Your task to perform on an android device: Clear the cart on walmart.com. Search for dell xps on walmart.com, select the first entry, and add it to the cart. Image 0: 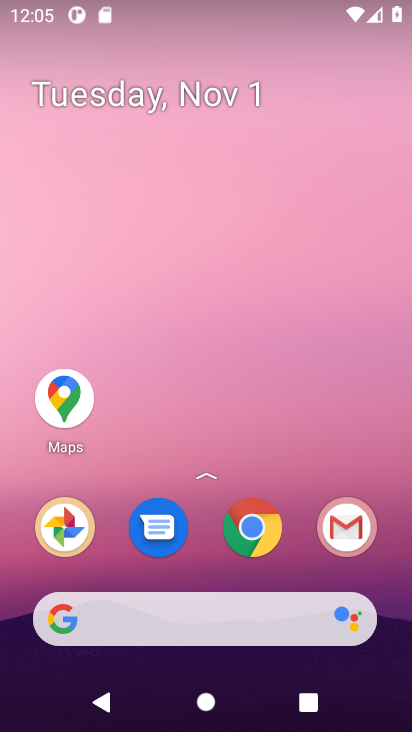
Step 0: click (248, 534)
Your task to perform on an android device: Clear the cart on walmart.com. Search for dell xps on walmart.com, select the first entry, and add it to the cart. Image 1: 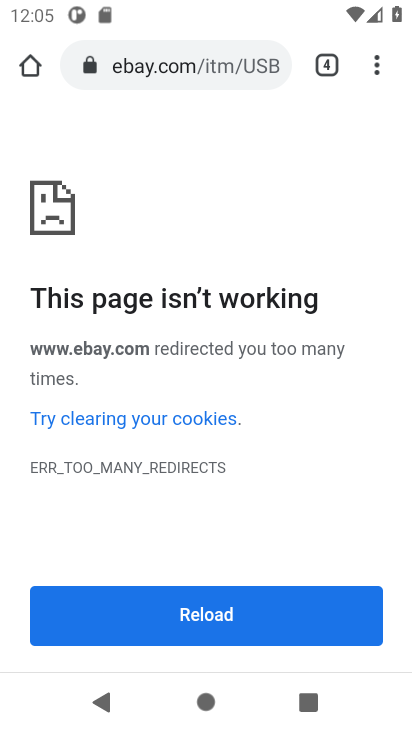
Step 1: click (174, 43)
Your task to perform on an android device: Clear the cart on walmart.com. Search for dell xps on walmart.com, select the first entry, and add it to the cart. Image 2: 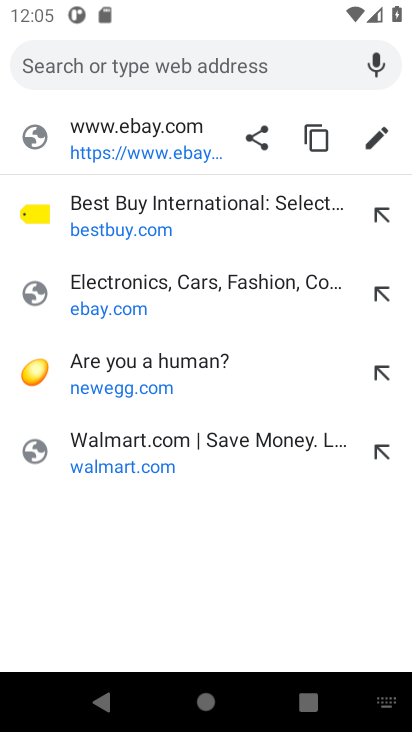
Step 2: click (90, 451)
Your task to perform on an android device: Clear the cart on walmart.com. Search for dell xps on walmart.com, select the first entry, and add it to the cart. Image 3: 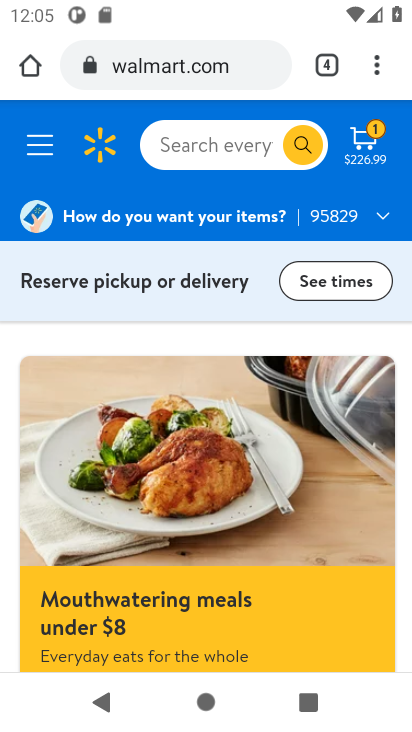
Step 3: click (366, 137)
Your task to perform on an android device: Clear the cart on walmart.com. Search for dell xps on walmart.com, select the first entry, and add it to the cart. Image 4: 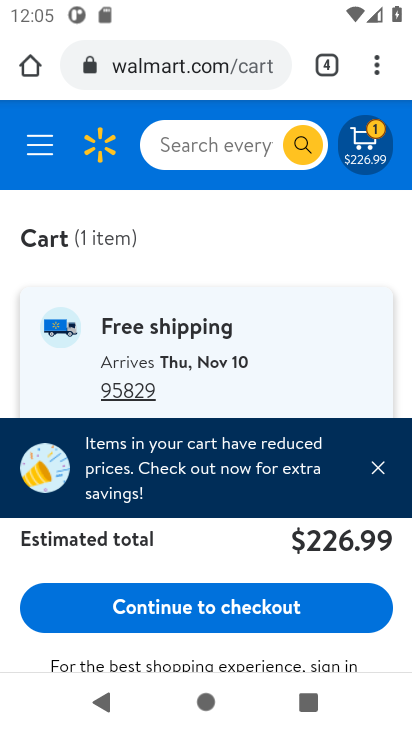
Step 4: click (375, 468)
Your task to perform on an android device: Clear the cart on walmart.com. Search for dell xps on walmart.com, select the first entry, and add it to the cart. Image 5: 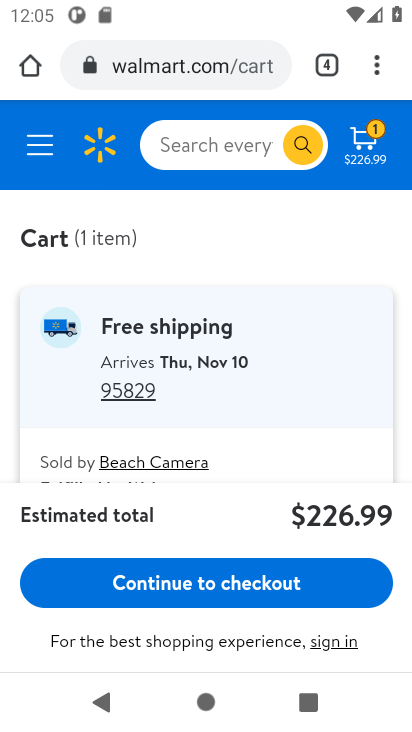
Step 5: drag from (234, 435) to (231, 233)
Your task to perform on an android device: Clear the cart on walmart.com. Search for dell xps on walmart.com, select the first entry, and add it to the cart. Image 6: 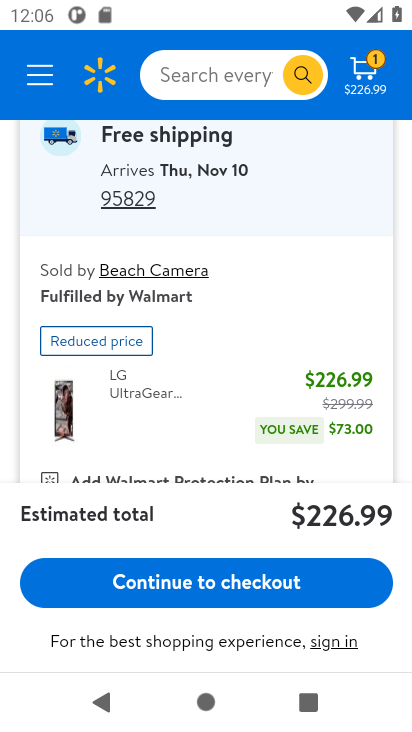
Step 6: drag from (189, 461) to (197, 162)
Your task to perform on an android device: Clear the cart on walmart.com. Search for dell xps on walmart.com, select the first entry, and add it to the cart. Image 7: 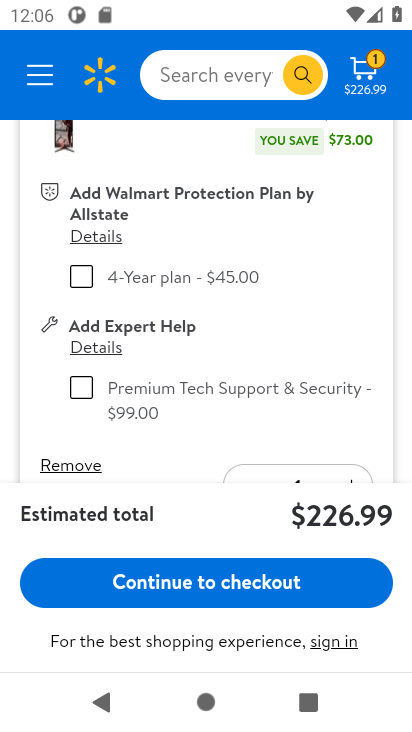
Step 7: click (58, 464)
Your task to perform on an android device: Clear the cart on walmart.com. Search for dell xps on walmart.com, select the first entry, and add it to the cart. Image 8: 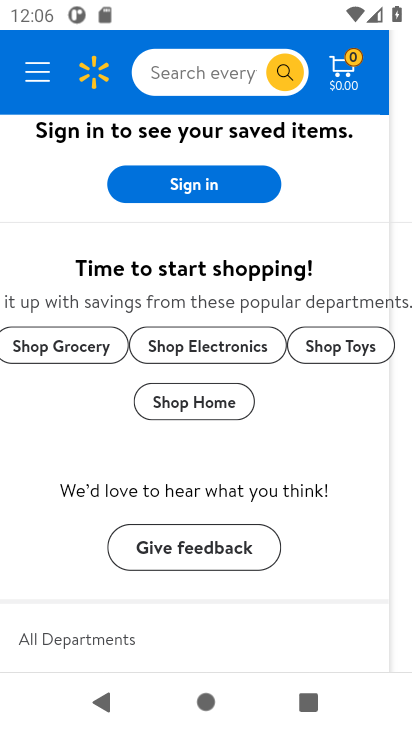
Step 8: click (184, 77)
Your task to perform on an android device: Clear the cart on walmart.com. Search for dell xps on walmart.com, select the first entry, and add it to the cart. Image 9: 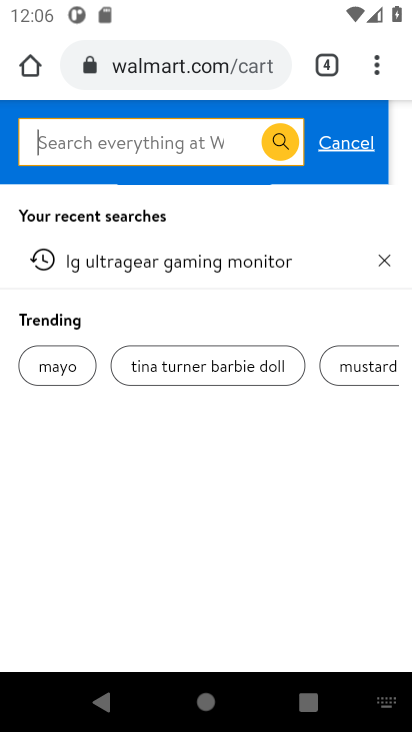
Step 9: type "dell xps"
Your task to perform on an android device: Clear the cart on walmart.com. Search for dell xps on walmart.com, select the first entry, and add it to the cart. Image 10: 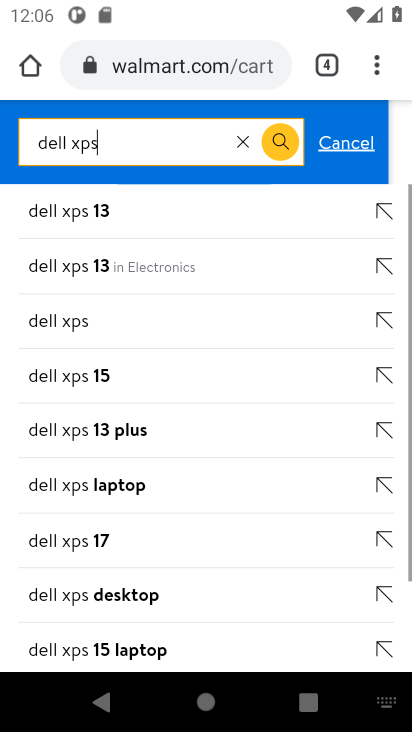
Step 10: click (71, 207)
Your task to perform on an android device: Clear the cart on walmart.com. Search for dell xps on walmart.com, select the first entry, and add it to the cart. Image 11: 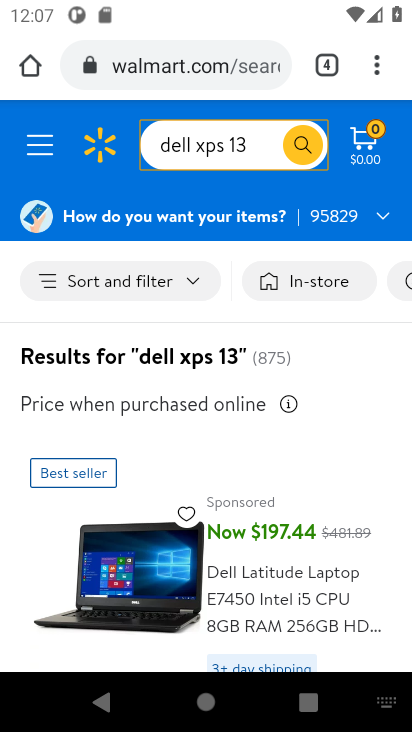
Step 11: drag from (272, 576) to (247, 312)
Your task to perform on an android device: Clear the cart on walmart.com. Search for dell xps on walmart.com, select the first entry, and add it to the cart. Image 12: 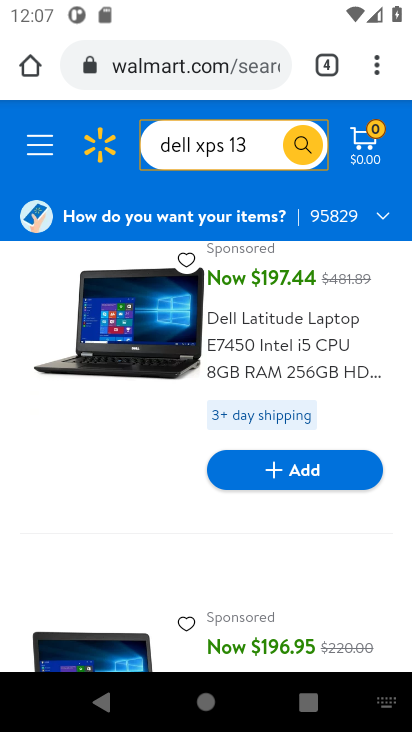
Step 12: click (284, 467)
Your task to perform on an android device: Clear the cart on walmart.com. Search for dell xps on walmart.com, select the first entry, and add it to the cart. Image 13: 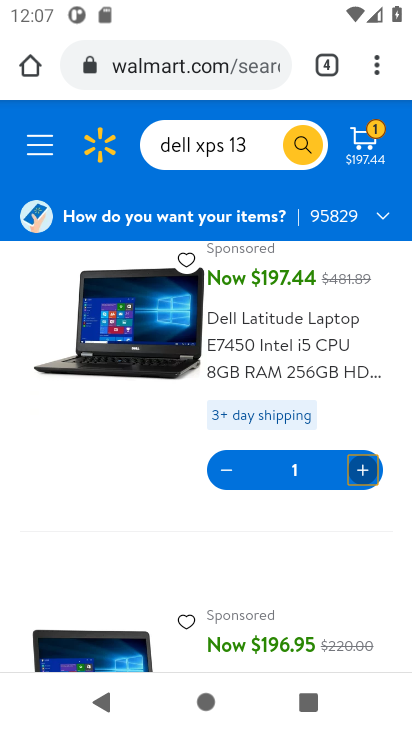
Step 13: task complete